Your task to perform on an android device: open app "Pinterest" Image 0: 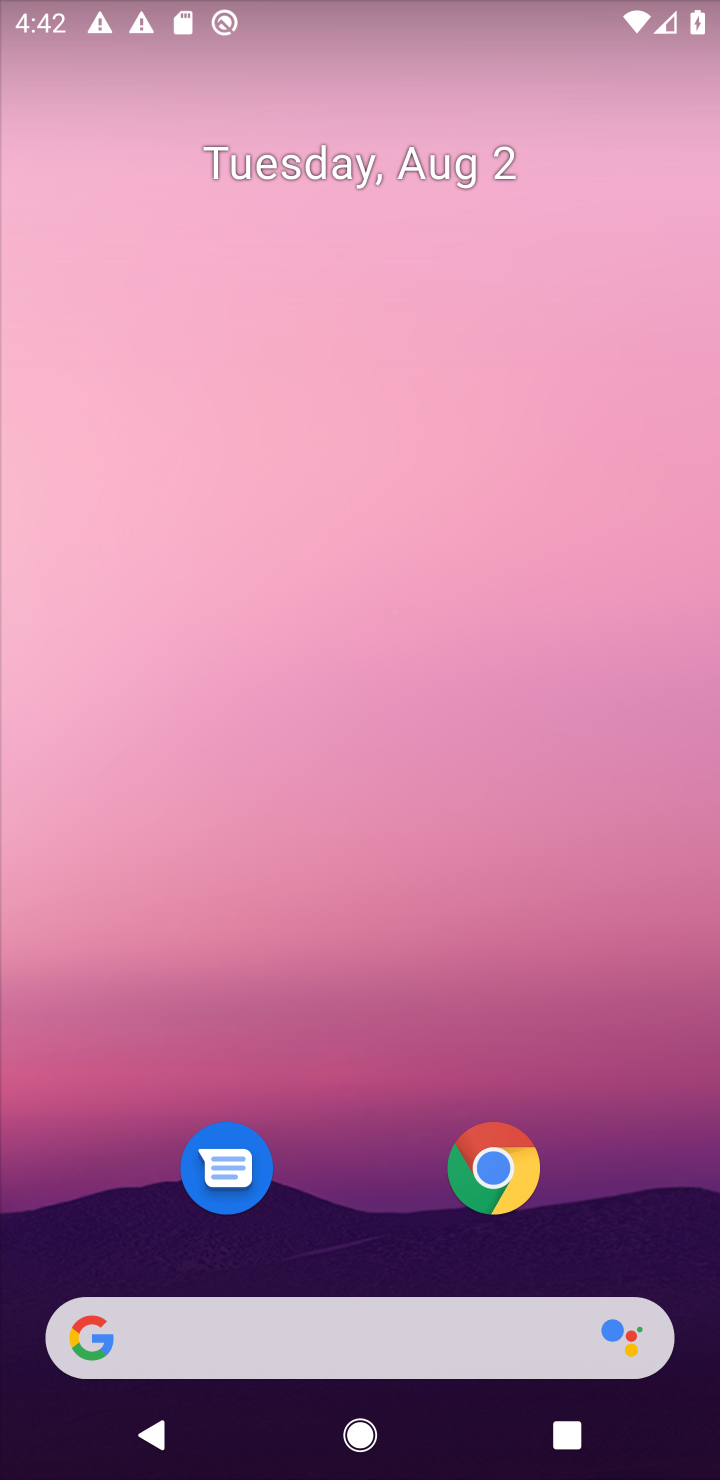
Step 0: drag from (341, 1292) to (491, 306)
Your task to perform on an android device: open app "Pinterest" Image 1: 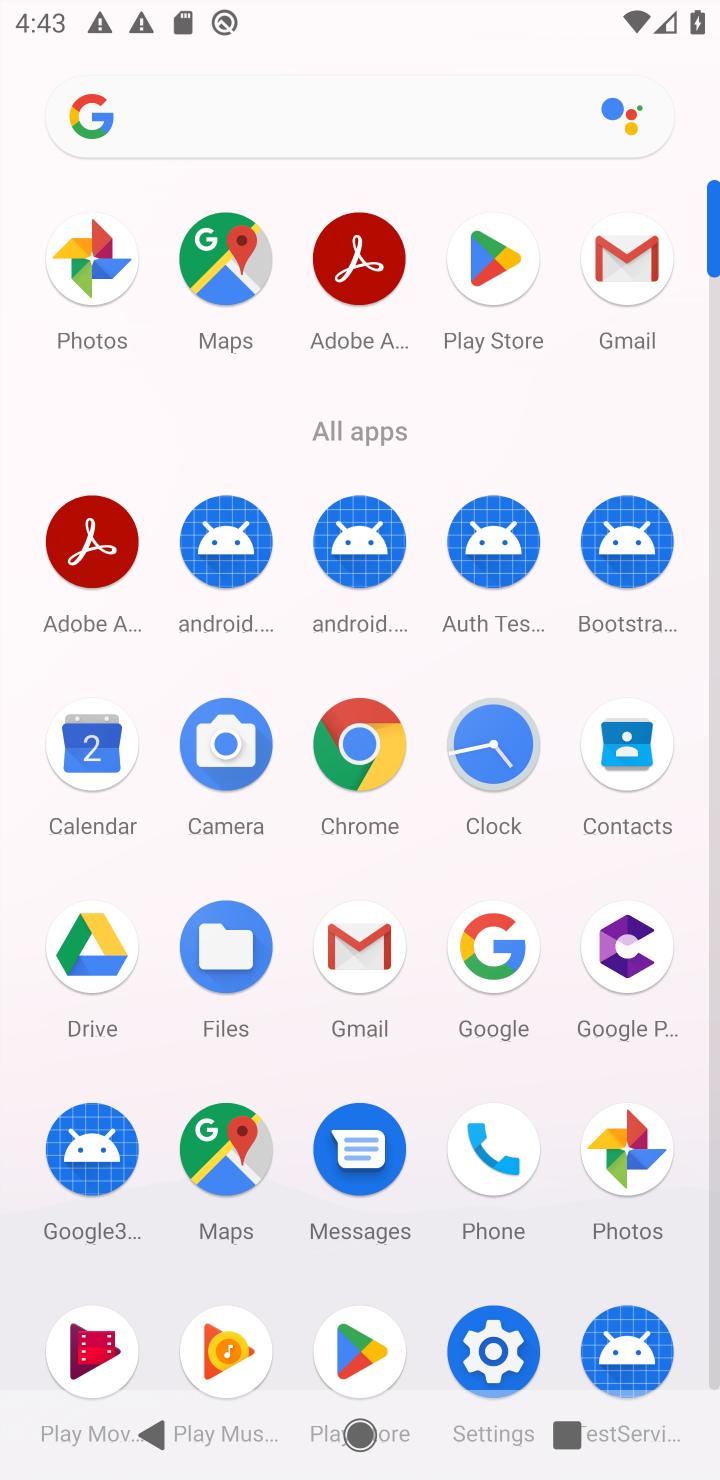
Step 1: click (504, 309)
Your task to perform on an android device: open app "Pinterest" Image 2: 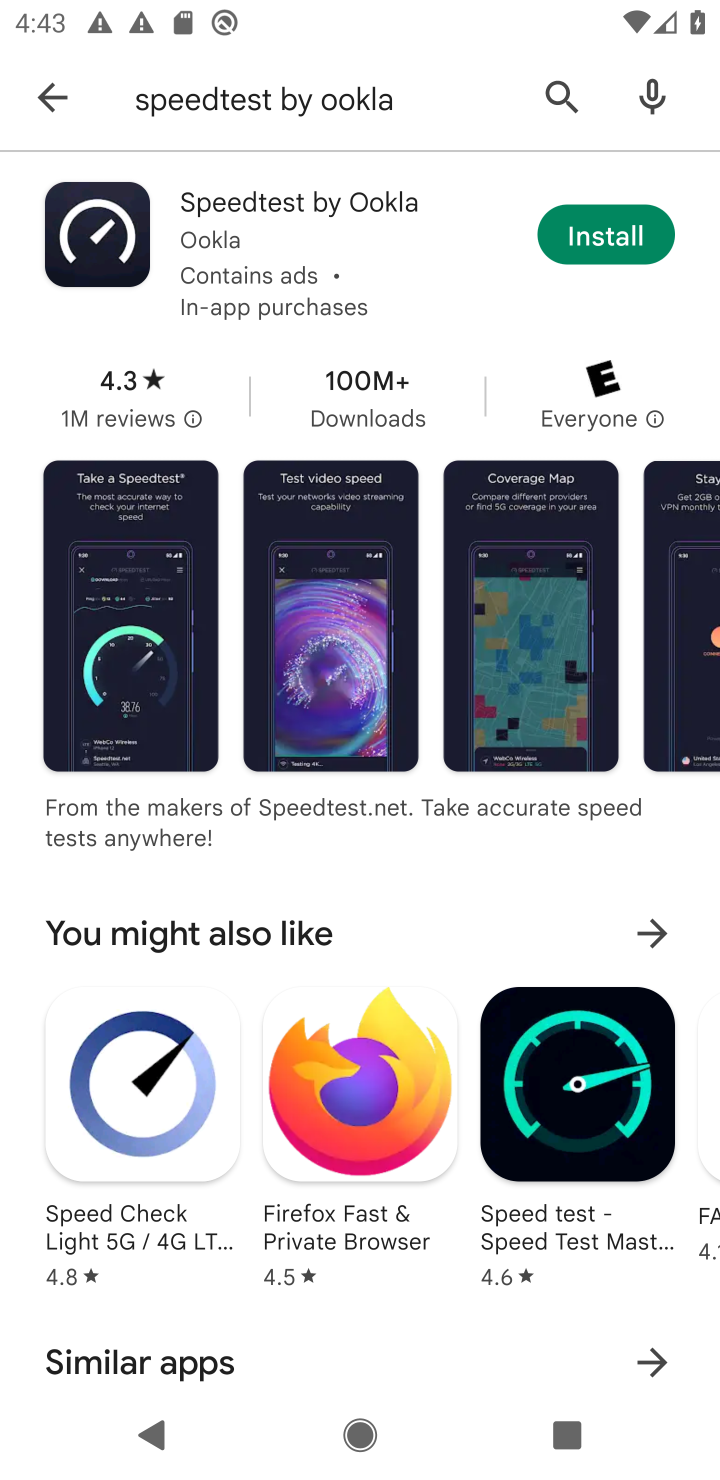
Step 2: click (321, 124)
Your task to perform on an android device: open app "Pinterest" Image 3: 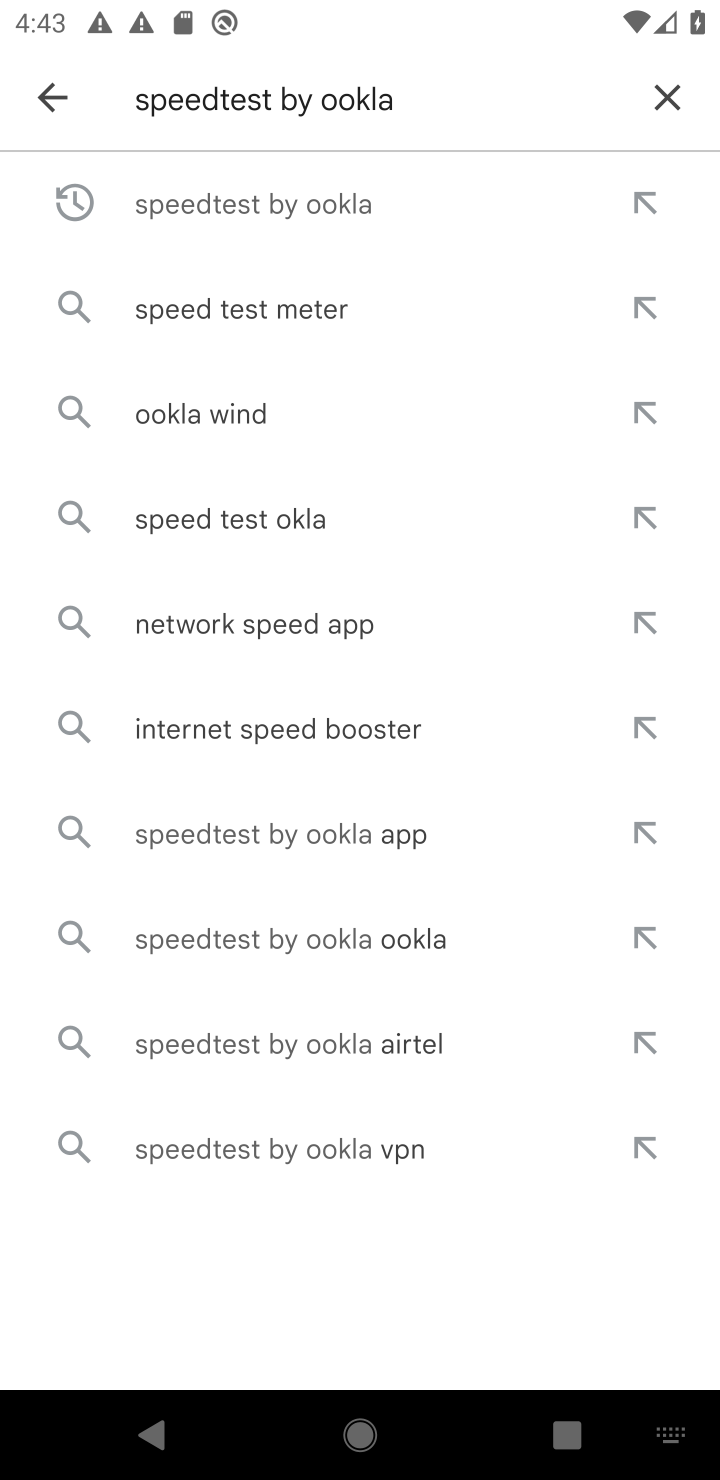
Step 3: click (684, 100)
Your task to perform on an android device: open app "Pinterest" Image 4: 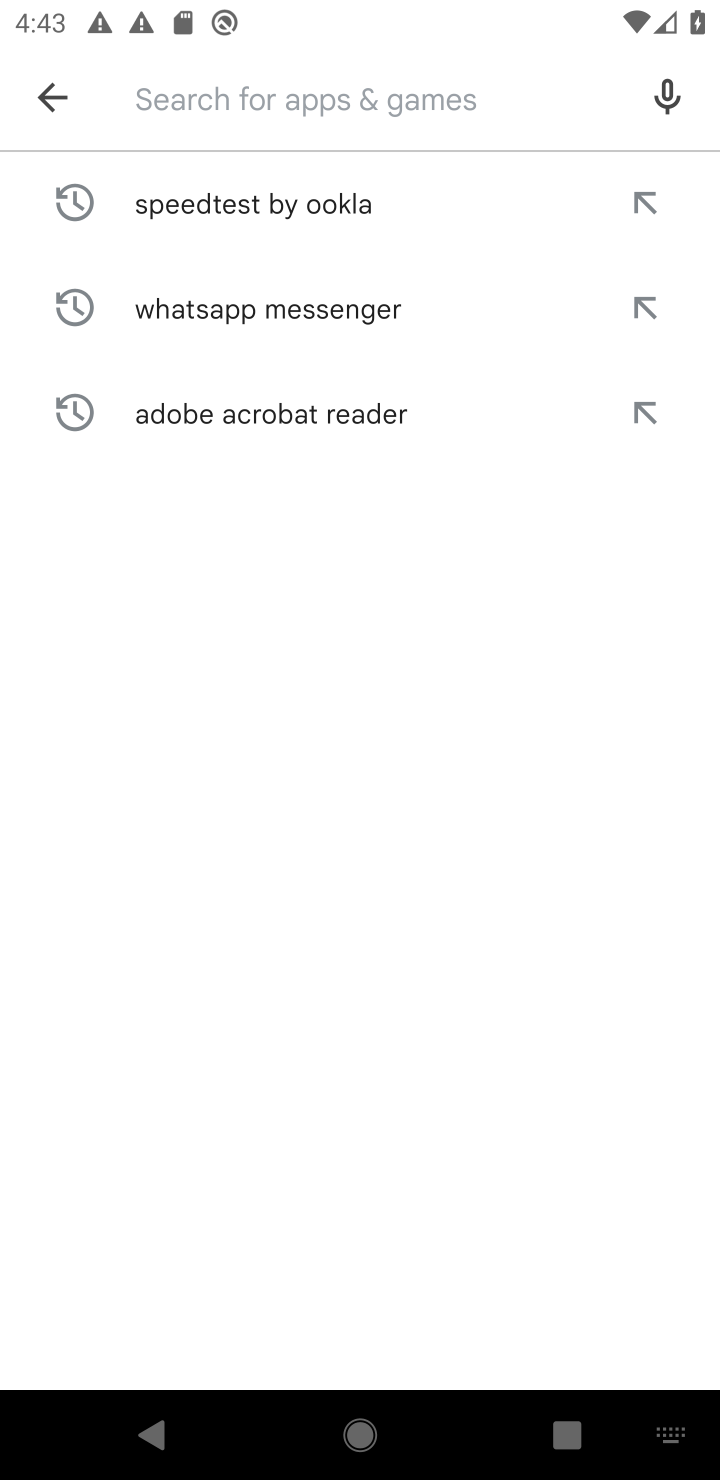
Step 4: type "Pinterest"
Your task to perform on an android device: open app "Pinterest" Image 5: 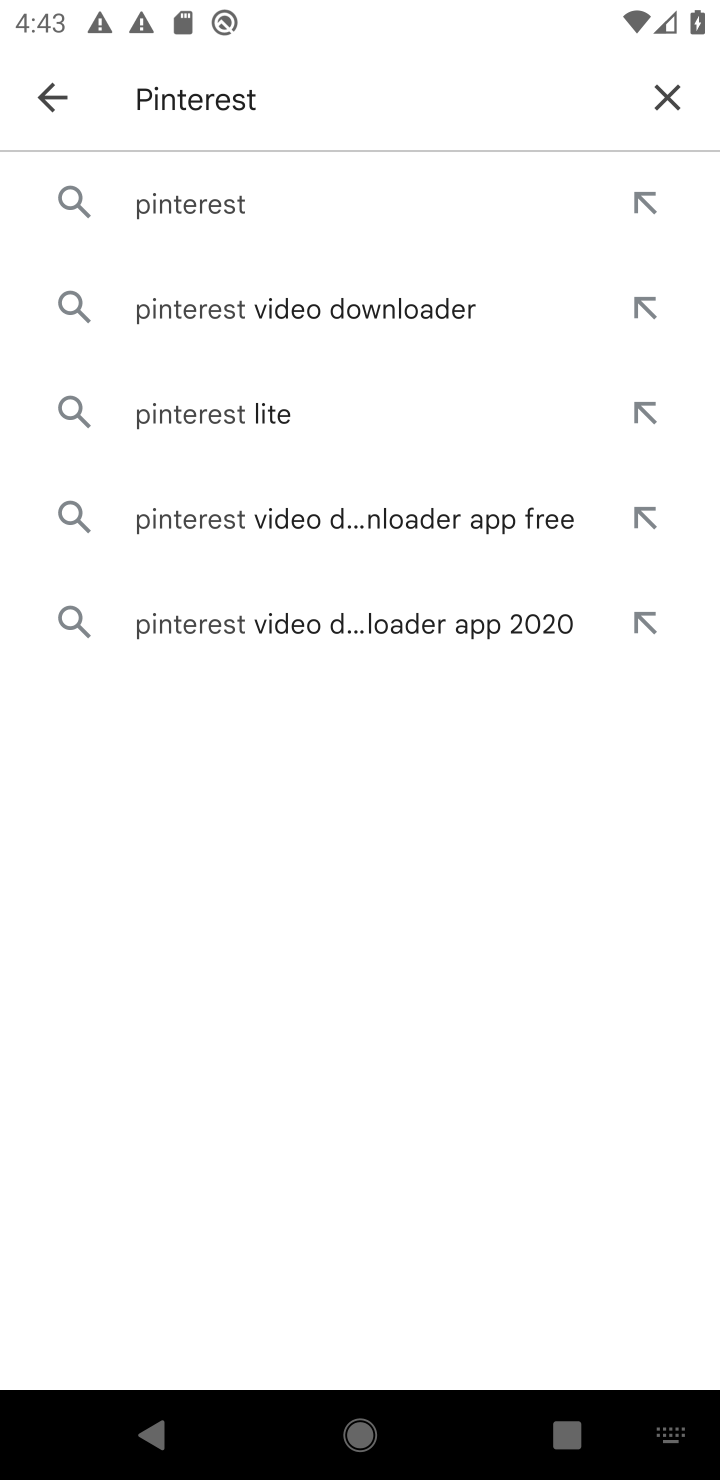
Step 5: click (176, 214)
Your task to perform on an android device: open app "Pinterest" Image 6: 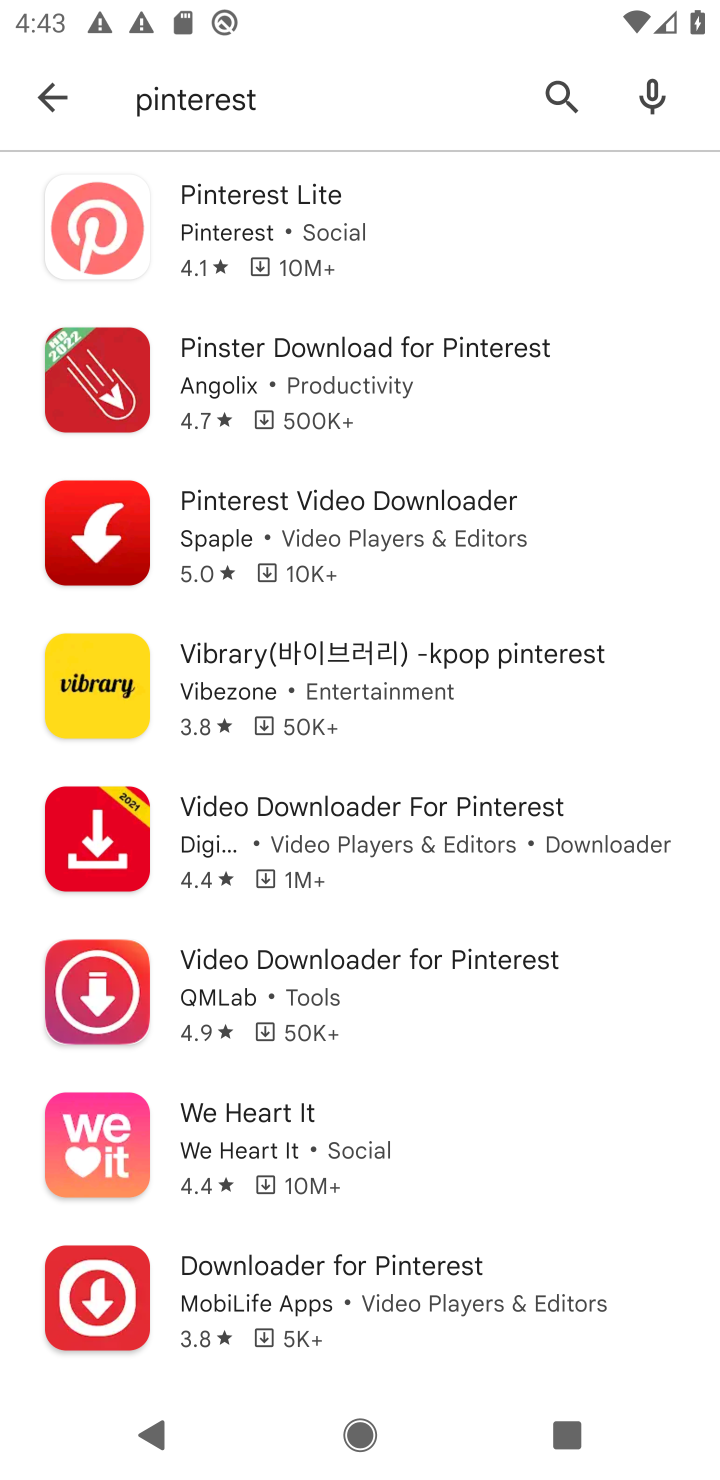
Step 6: click (234, 279)
Your task to perform on an android device: open app "Pinterest" Image 7: 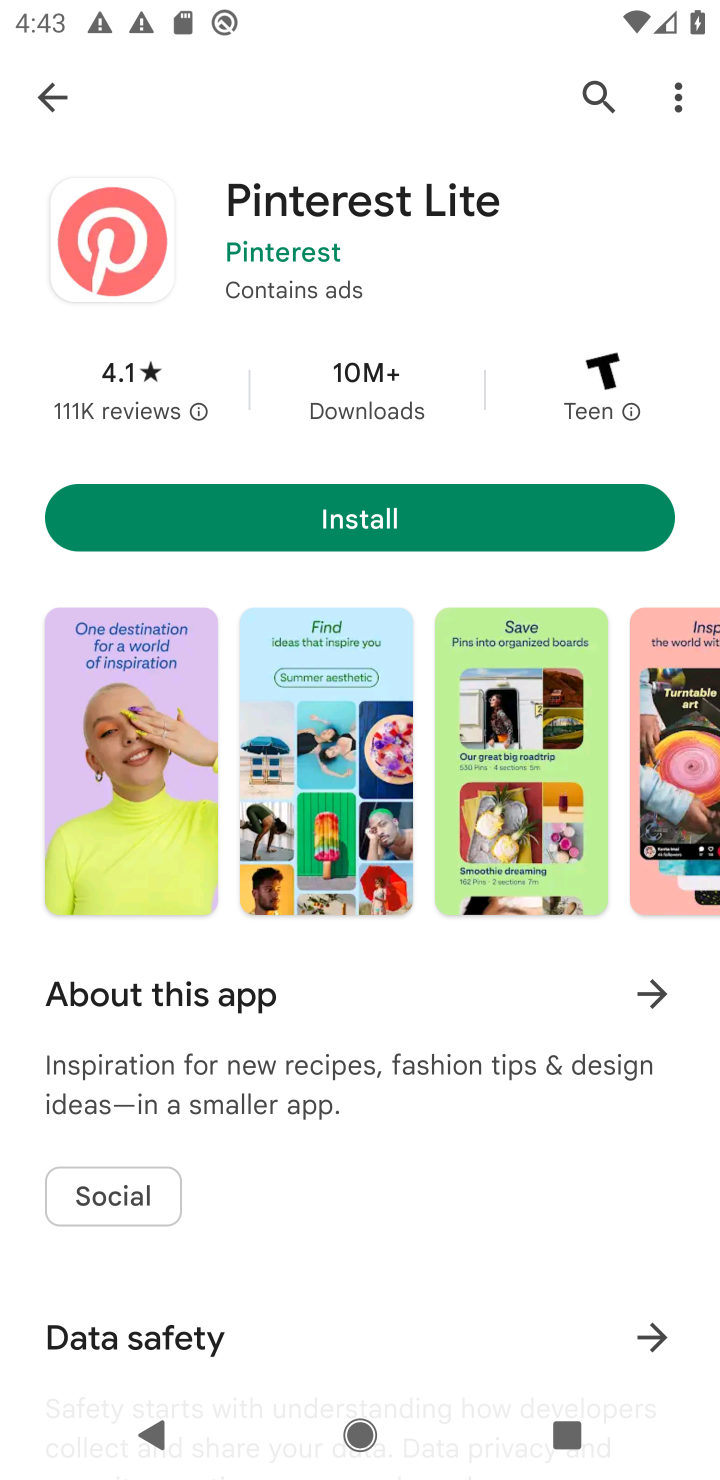
Step 7: task complete